Your task to perform on an android device: Open privacy settings Image 0: 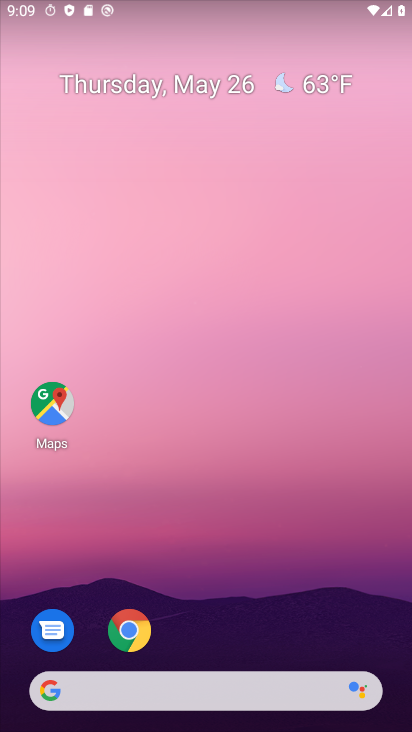
Step 0: drag from (244, 728) to (167, 244)
Your task to perform on an android device: Open privacy settings Image 1: 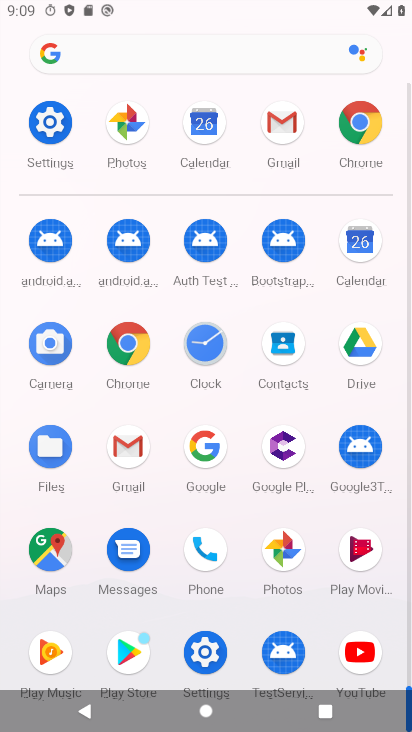
Step 1: click (49, 109)
Your task to perform on an android device: Open privacy settings Image 2: 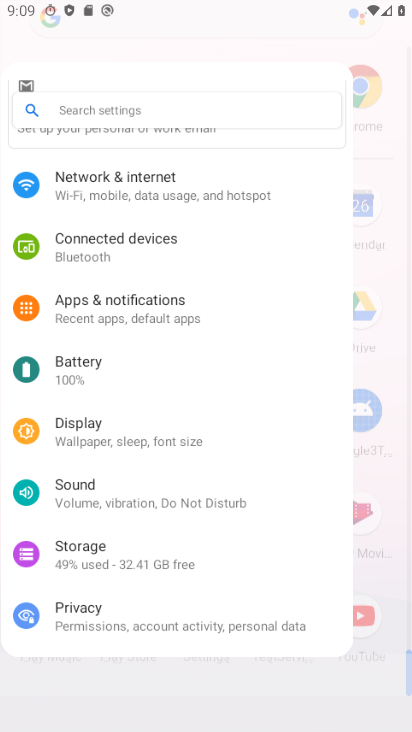
Step 2: click (58, 109)
Your task to perform on an android device: Open privacy settings Image 3: 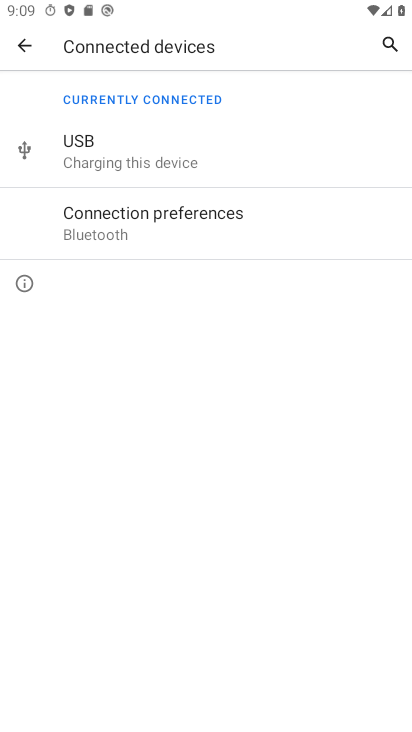
Step 3: click (30, 36)
Your task to perform on an android device: Open privacy settings Image 4: 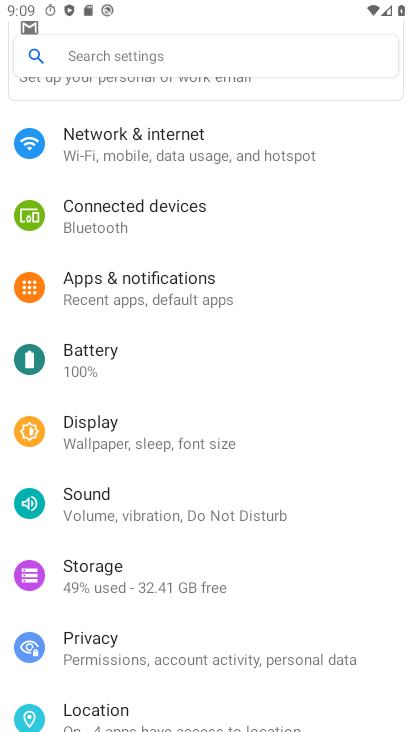
Step 4: click (107, 643)
Your task to perform on an android device: Open privacy settings Image 5: 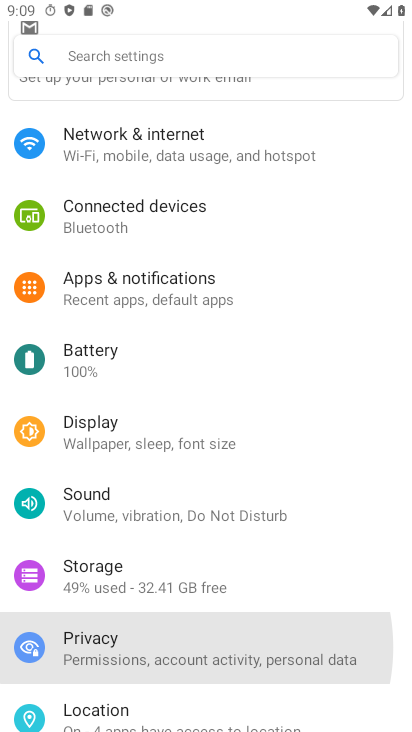
Step 5: click (107, 643)
Your task to perform on an android device: Open privacy settings Image 6: 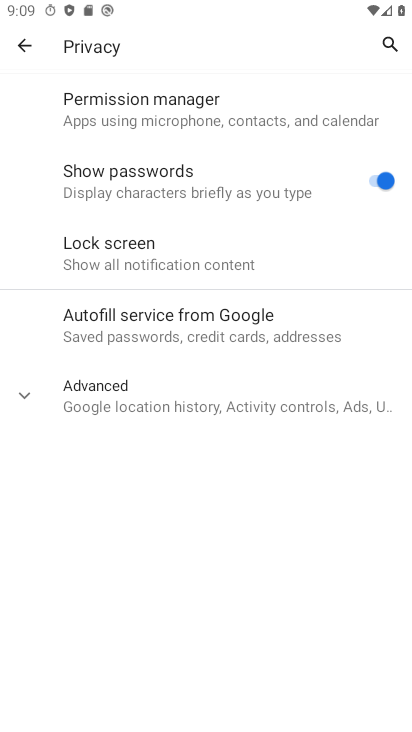
Step 6: task complete